Your task to perform on an android device: Turn off the flashlight Image 0: 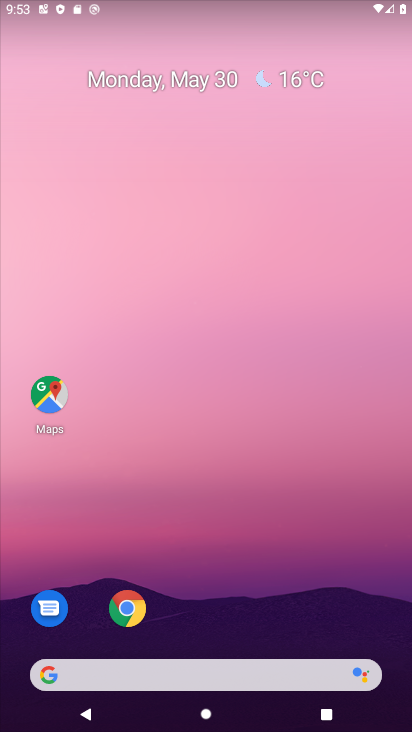
Step 0: drag from (397, 709) to (355, 200)
Your task to perform on an android device: Turn off the flashlight Image 1: 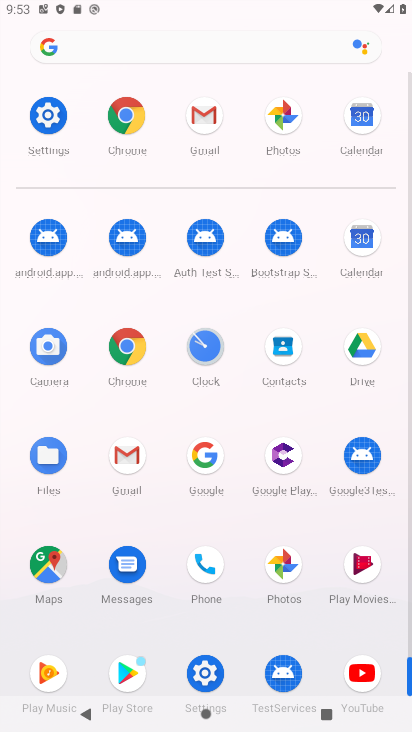
Step 1: click (203, 677)
Your task to perform on an android device: Turn off the flashlight Image 2: 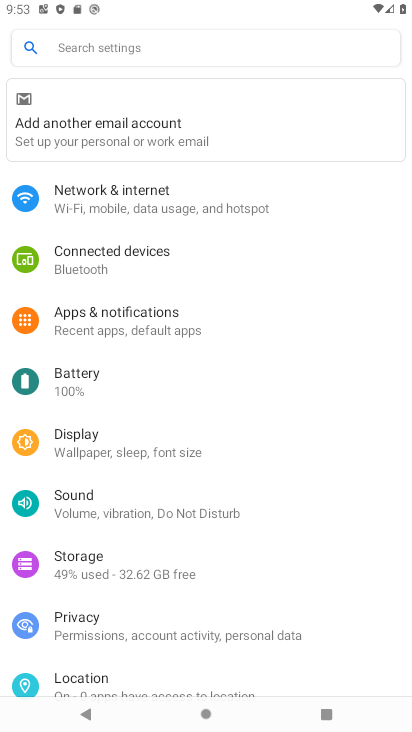
Step 2: click (65, 432)
Your task to perform on an android device: Turn off the flashlight Image 3: 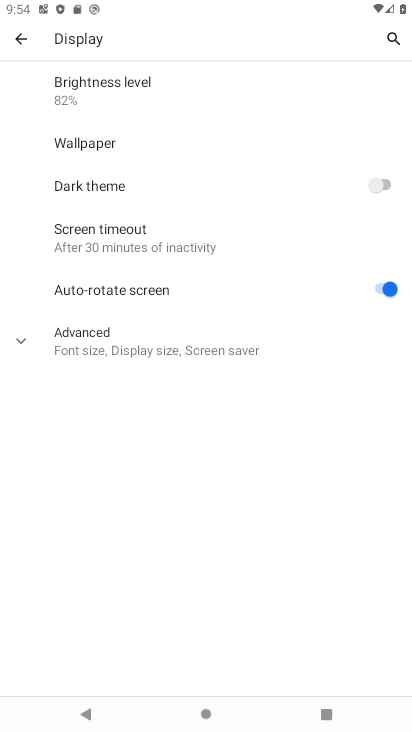
Step 3: task complete